Your task to perform on an android device: Go to settings Image 0: 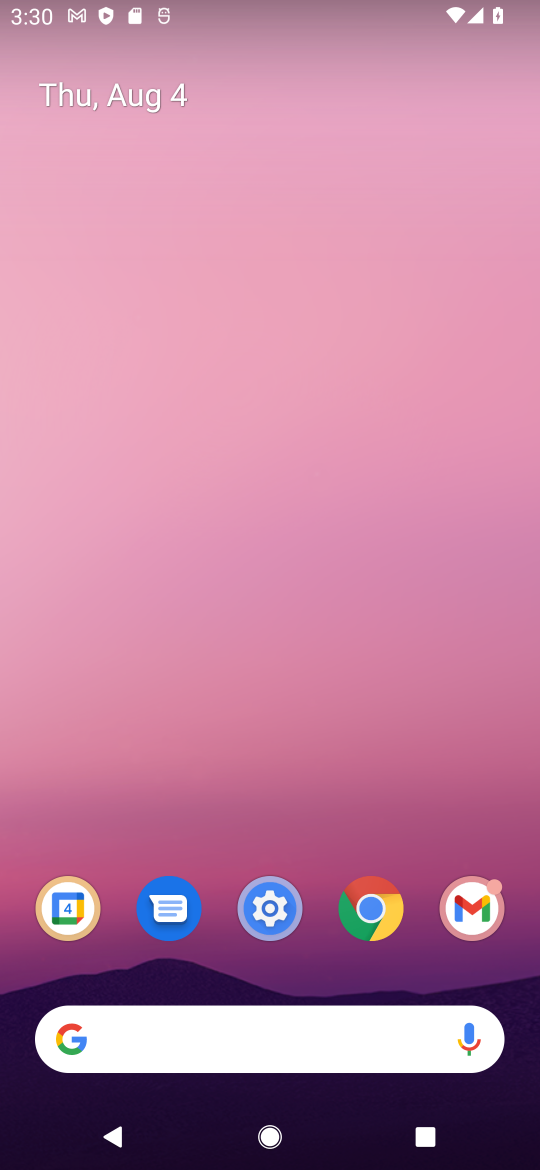
Step 0: click (282, 903)
Your task to perform on an android device: Go to settings Image 1: 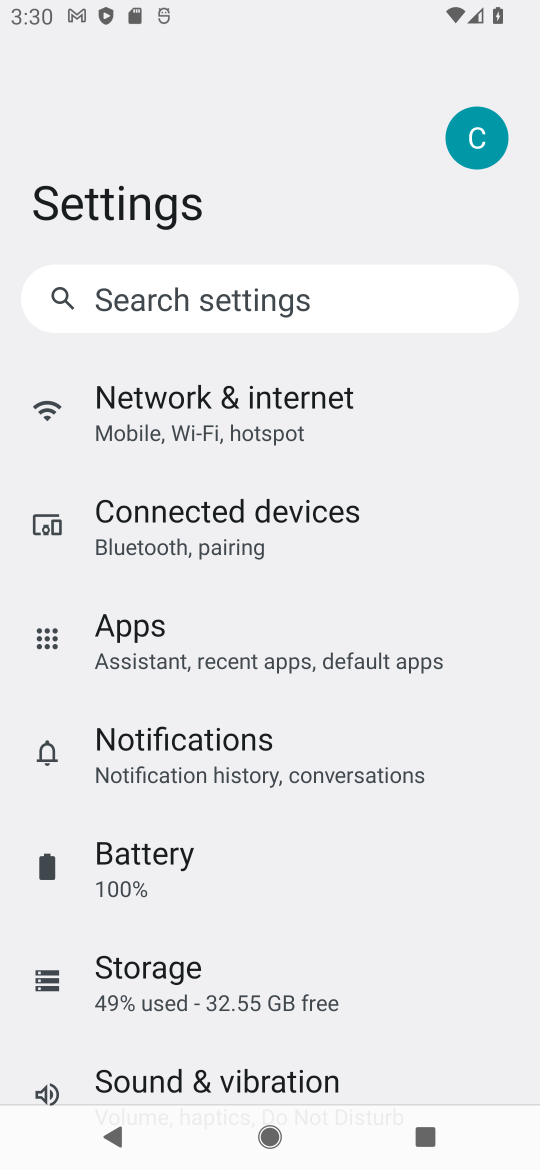
Step 1: task complete